Your task to perform on an android device: Search for seafood restaurants on Google Maps Image 0: 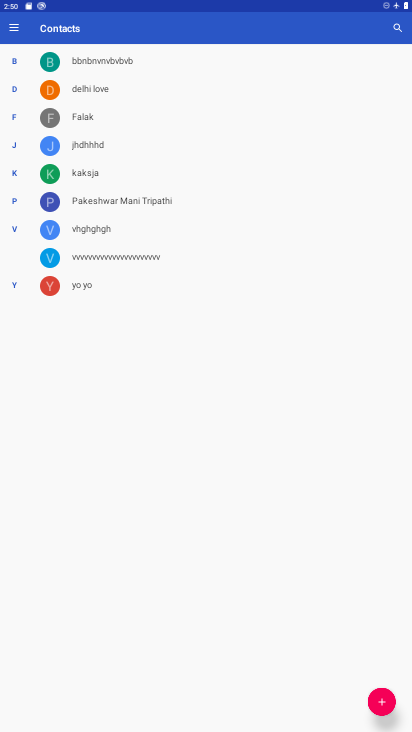
Step 0: press home button
Your task to perform on an android device: Search for seafood restaurants on Google Maps Image 1: 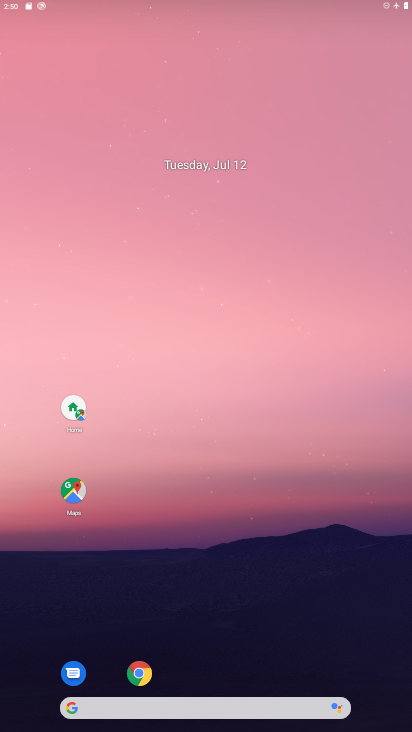
Step 1: drag from (246, 618) to (220, 221)
Your task to perform on an android device: Search for seafood restaurants on Google Maps Image 2: 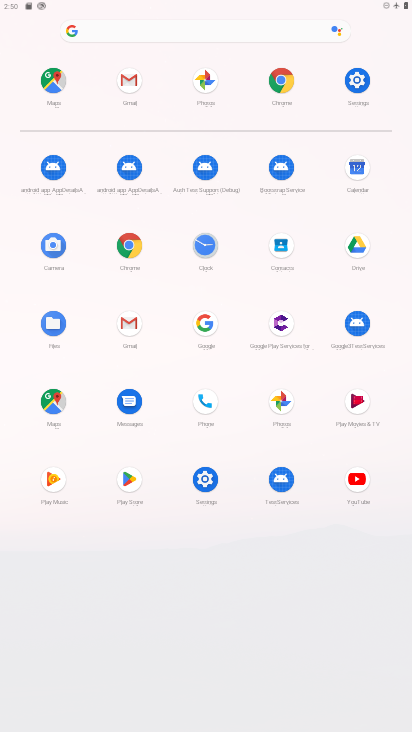
Step 2: click (50, 401)
Your task to perform on an android device: Search for seafood restaurants on Google Maps Image 3: 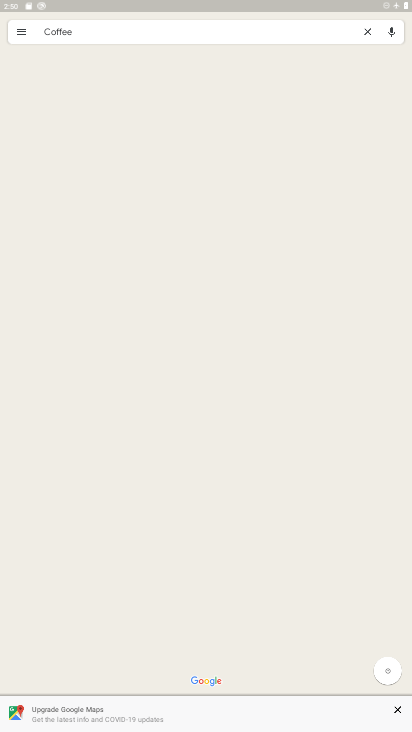
Step 3: click (105, 27)
Your task to perform on an android device: Search for seafood restaurants on Google Maps Image 4: 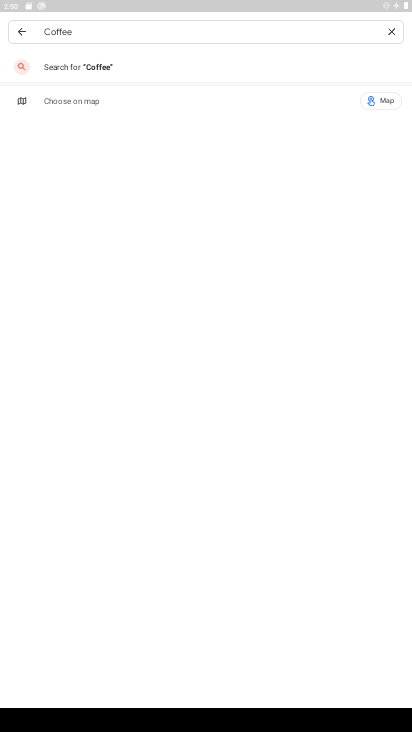
Step 4: click (391, 27)
Your task to perform on an android device: Search for seafood restaurants on Google Maps Image 5: 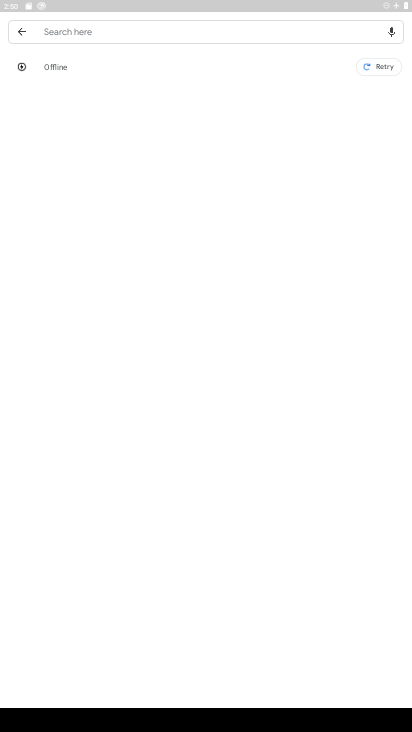
Step 5: click (161, 22)
Your task to perform on an android device: Search for seafood restaurants on Google Maps Image 6: 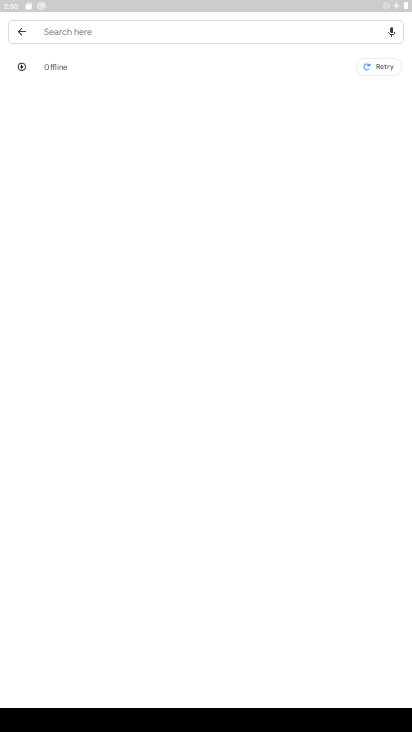
Step 6: type "seafood restaurant "
Your task to perform on an android device: Search for seafood restaurants on Google Maps Image 7: 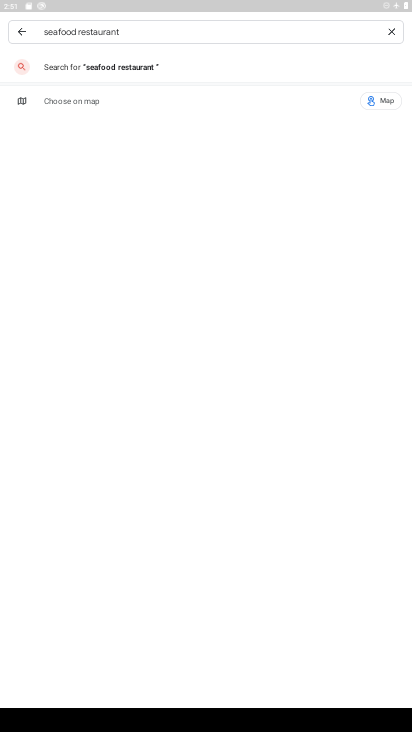
Step 7: click (138, 62)
Your task to perform on an android device: Search for seafood restaurants on Google Maps Image 8: 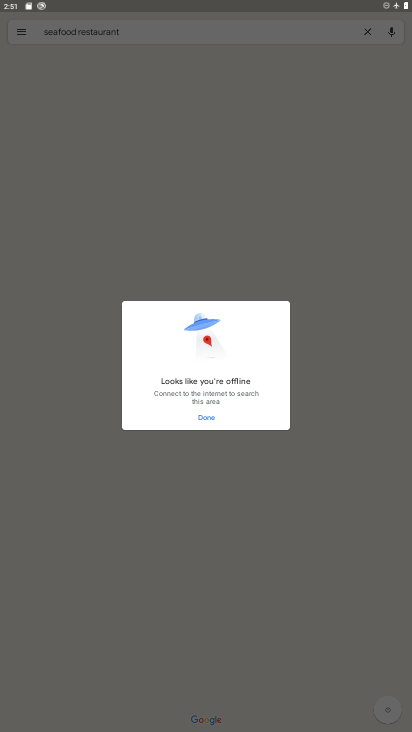
Step 8: task complete